Your task to perform on an android device: Open location settings Image 0: 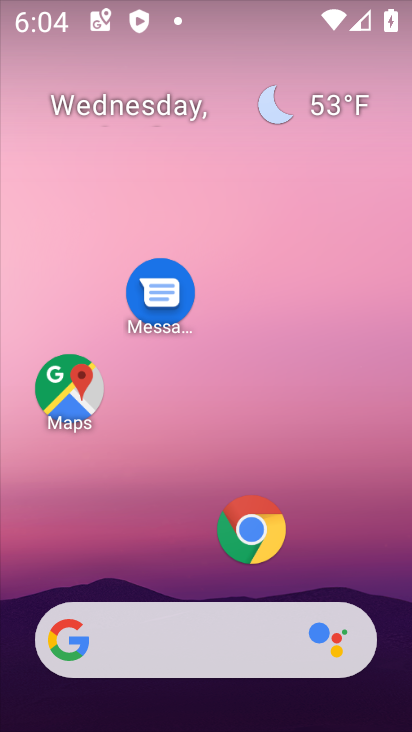
Step 0: drag from (239, 582) to (265, 28)
Your task to perform on an android device: Open location settings Image 1: 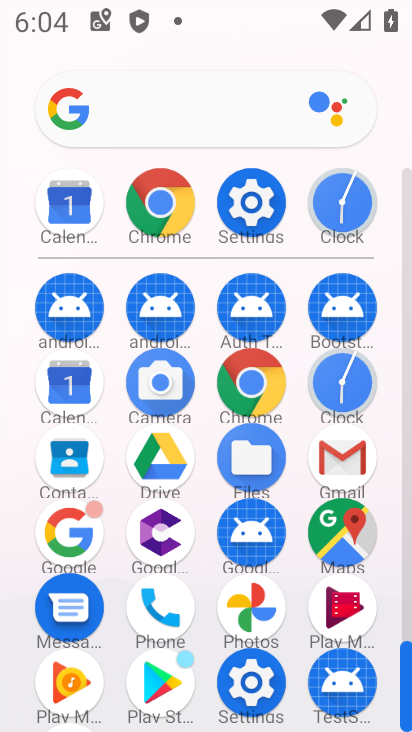
Step 1: click (252, 210)
Your task to perform on an android device: Open location settings Image 2: 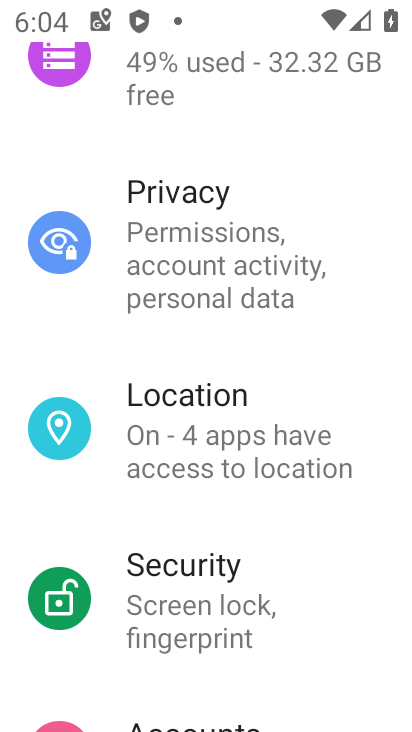
Step 2: drag from (210, 632) to (227, 280)
Your task to perform on an android device: Open location settings Image 3: 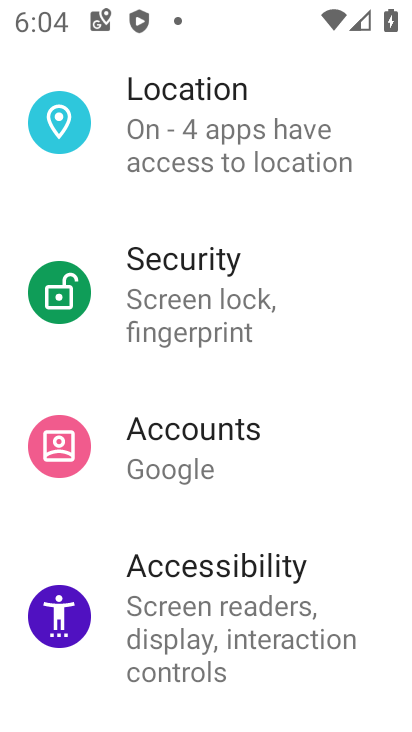
Step 3: drag from (215, 580) to (253, 241)
Your task to perform on an android device: Open location settings Image 4: 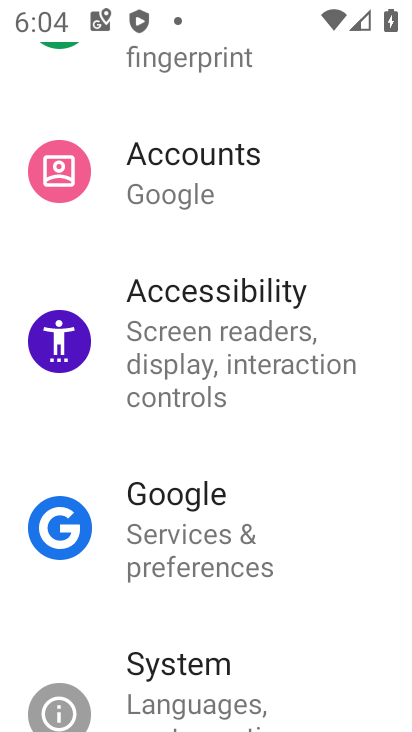
Step 4: drag from (235, 593) to (246, 205)
Your task to perform on an android device: Open location settings Image 5: 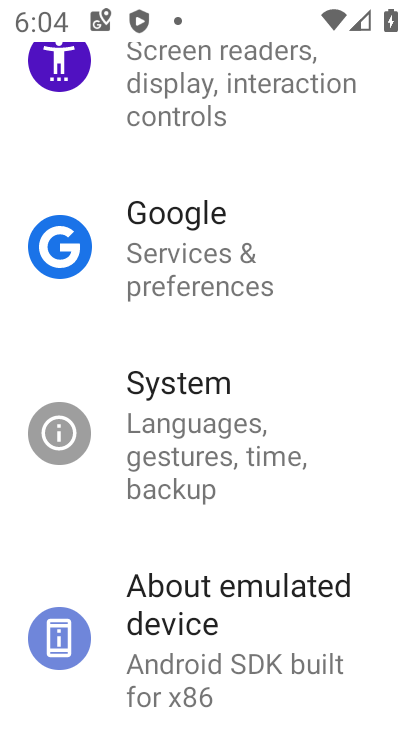
Step 5: drag from (212, 256) to (216, 479)
Your task to perform on an android device: Open location settings Image 6: 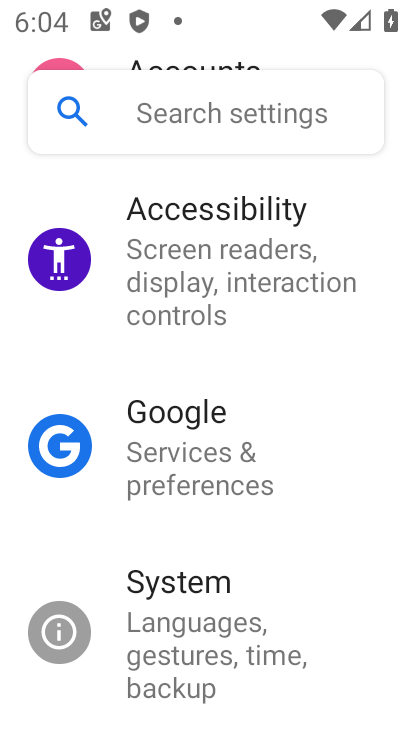
Step 6: drag from (226, 356) to (226, 572)
Your task to perform on an android device: Open location settings Image 7: 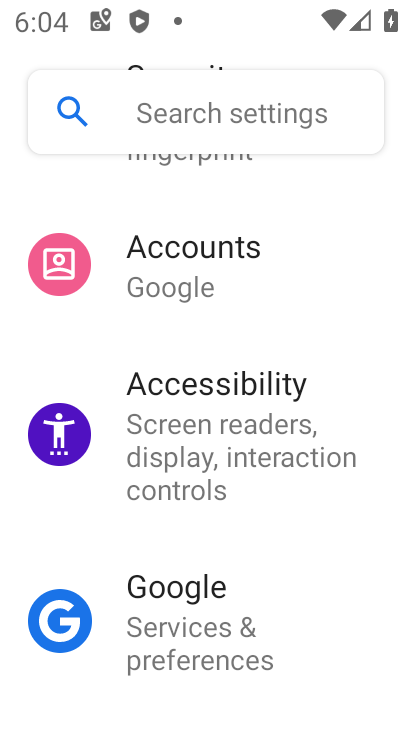
Step 7: drag from (225, 298) to (223, 598)
Your task to perform on an android device: Open location settings Image 8: 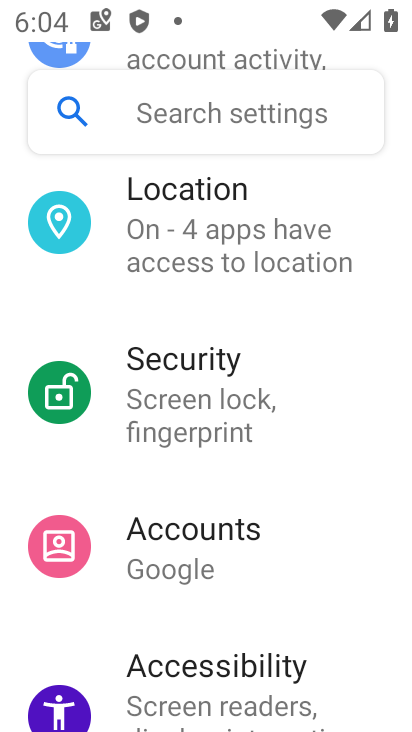
Step 8: click (186, 264)
Your task to perform on an android device: Open location settings Image 9: 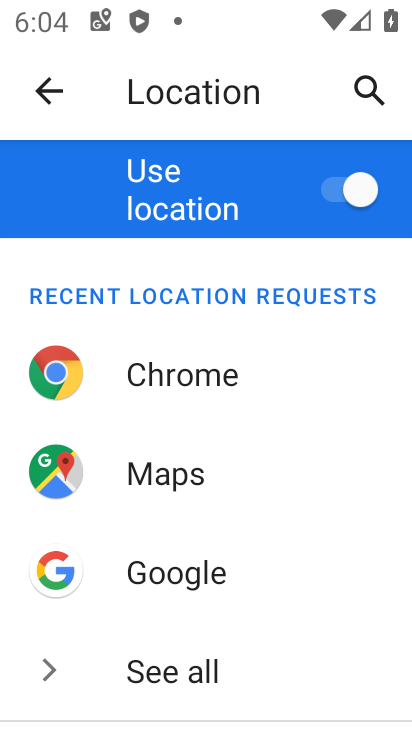
Step 9: task complete